Your task to perform on an android device: Show me popular videos on Youtube Image 0: 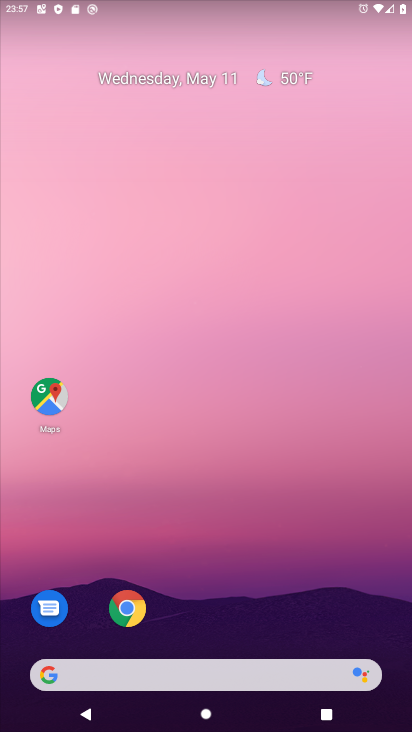
Step 0: drag from (281, 584) to (267, 105)
Your task to perform on an android device: Show me popular videos on Youtube Image 1: 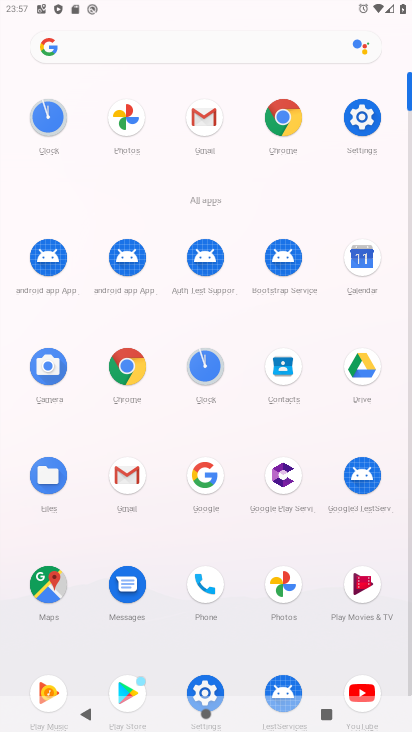
Step 1: drag from (233, 448) to (249, 196)
Your task to perform on an android device: Show me popular videos on Youtube Image 2: 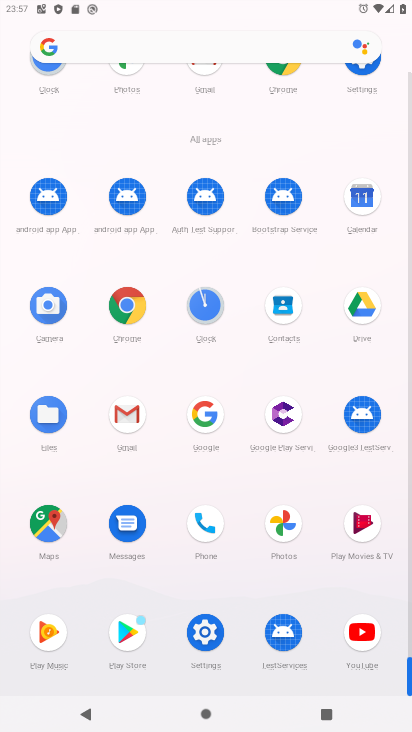
Step 2: click (358, 629)
Your task to perform on an android device: Show me popular videos on Youtube Image 3: 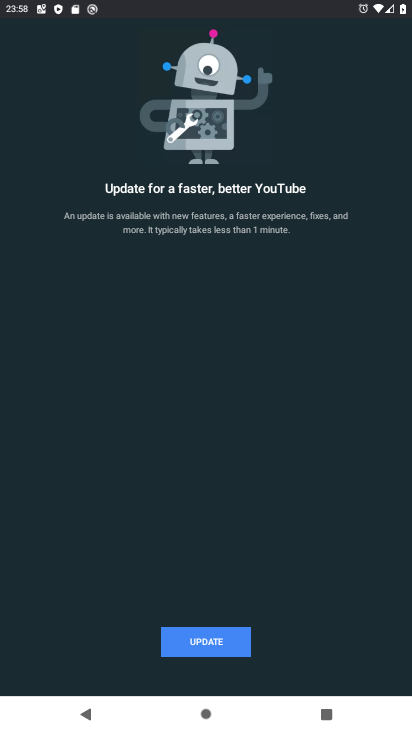
Step 3: click (217, 634)
Your task to perform on an android device: Show me popular videos on Youtube Image 4: 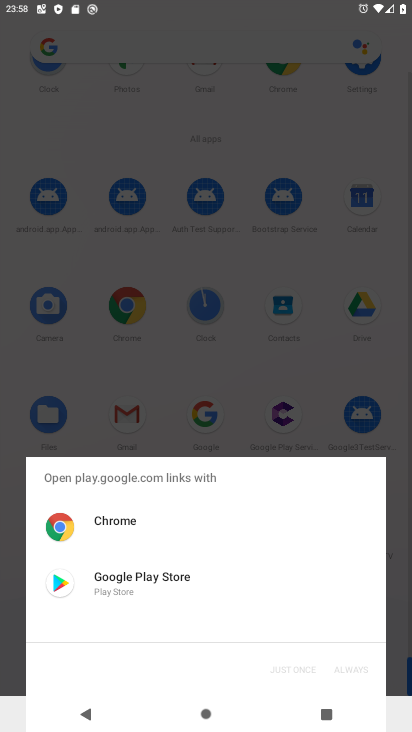
Step 4: click (149, 584)
Your task to perform on an android device: Show me popular videos on Youtube Image 5: 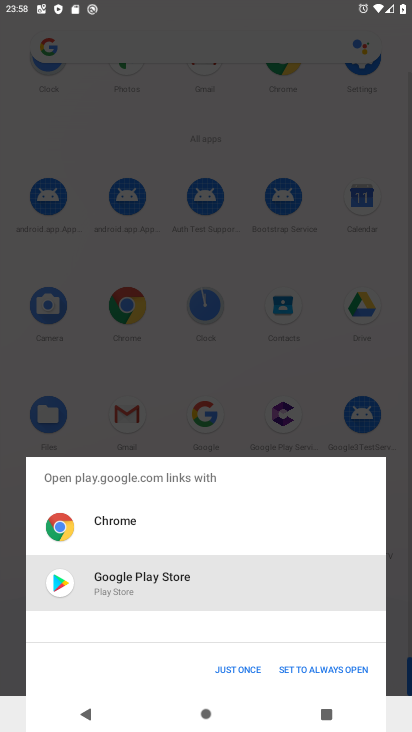
Step 5: click (236, 669)
Your task to perform on an android device: Show me popular videos on Youtube Image 6: 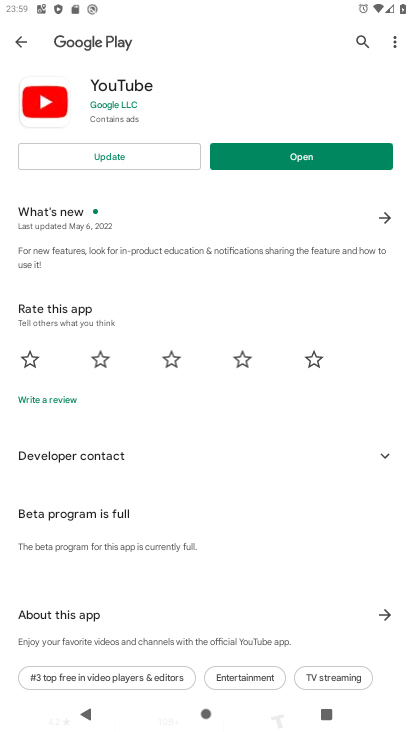
Step 6: click (150, 157)
Your task to perform on an android device: Show me popular videos on Youtube Image 7: 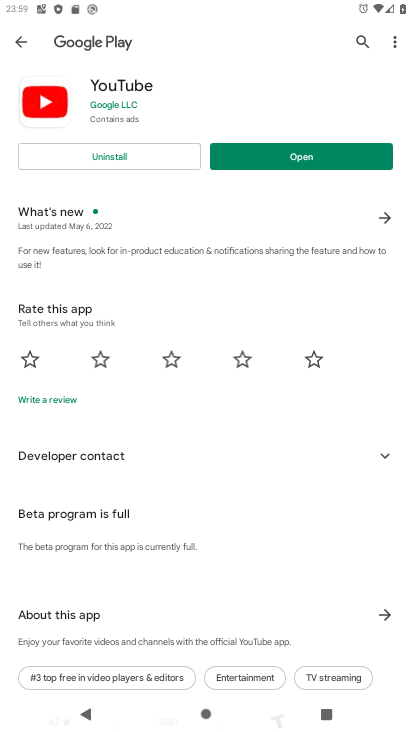
Step 7: click (328, 154)
Your task to perform on an android device: Show me popular videos on Youtube Image 8: 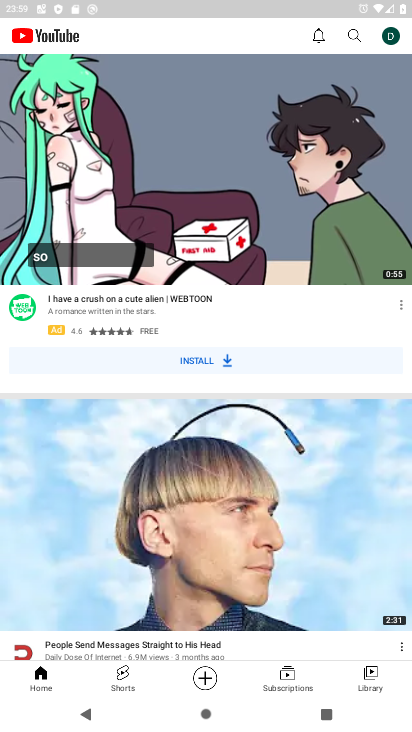
Step 8: click (353, 34)
Your task to perform on an android device: Show me popular videos on Youtube Image 9: 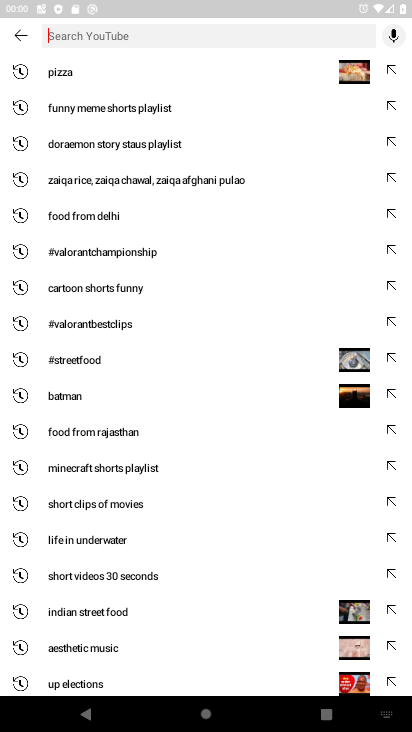
Step 9: click (309, 37)
Your task to perform on an android device: Show me popular videos on Youtube Image 10: 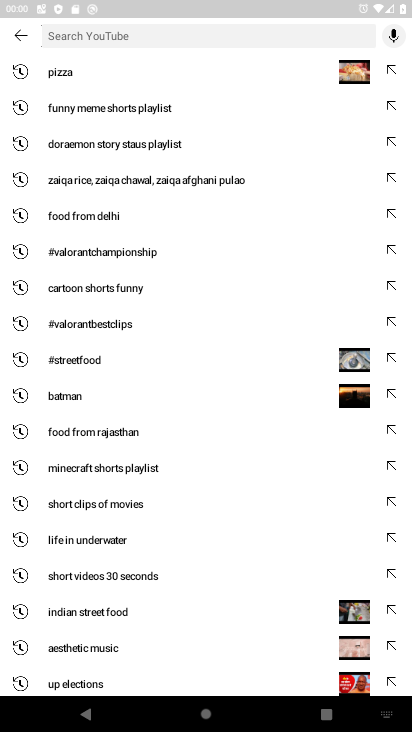
Step 10: type "popular videos"
Your task to perform on an android device: Show me popular videos on Youtube Image 11: 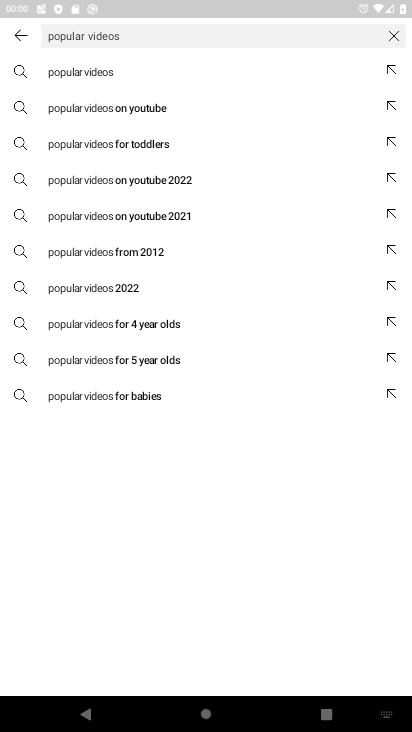
Step 11: click (100, 77)
Your task to perform on an android device: Show me popular videos on Youtube Image 12: 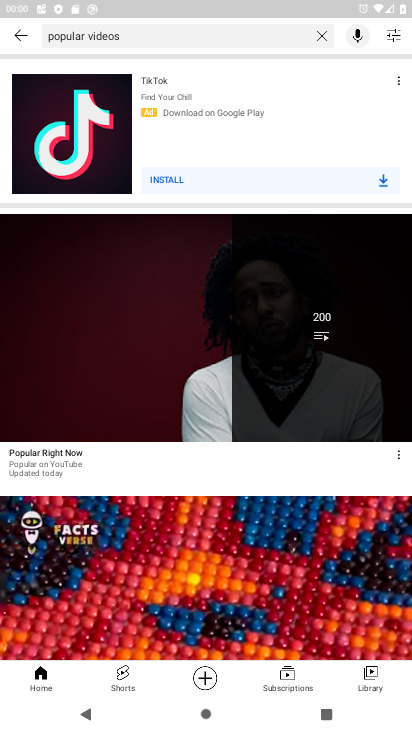
Step 12: task complete